Your task to perform on an android device: allow cookies in the chrome app Image 0: 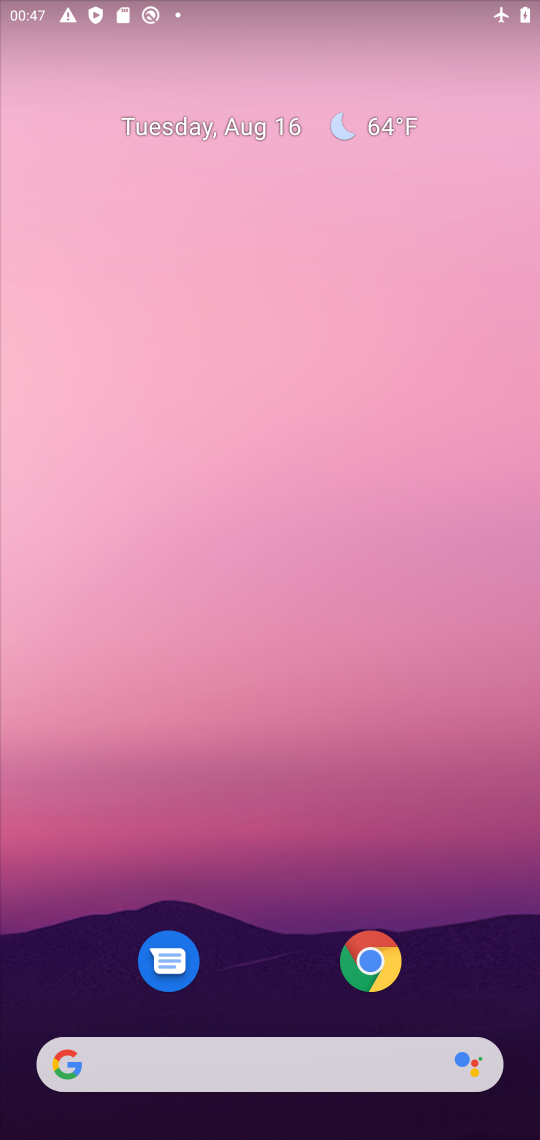
Step 0: press home button
Your task to perform on an android device: allow cookies in the chrome app Image 1: 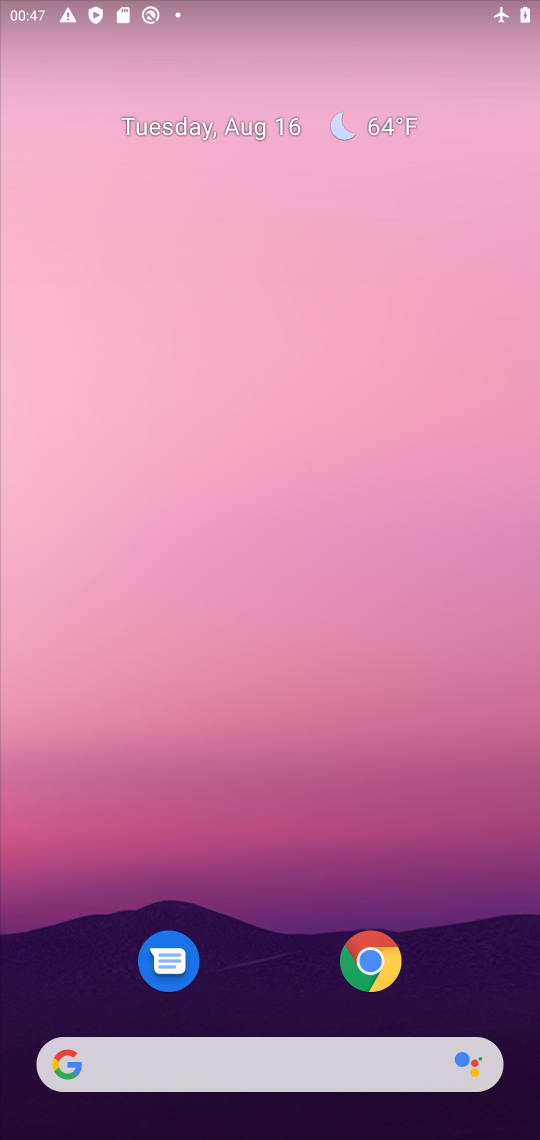
Step 1: drag from (213, 994) to (346, 166)
Your task to perform on an android device: allow cookies in the chrome app Image 2: 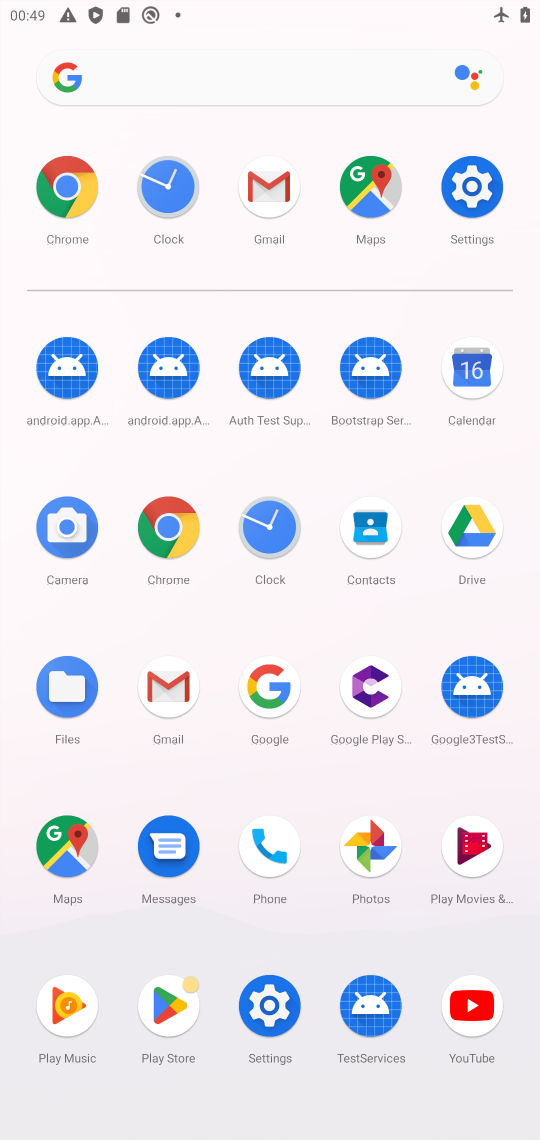
Step 2: click (170, 542)
Your task to perform on an android device: allow cookies in the chrome app Image 3: 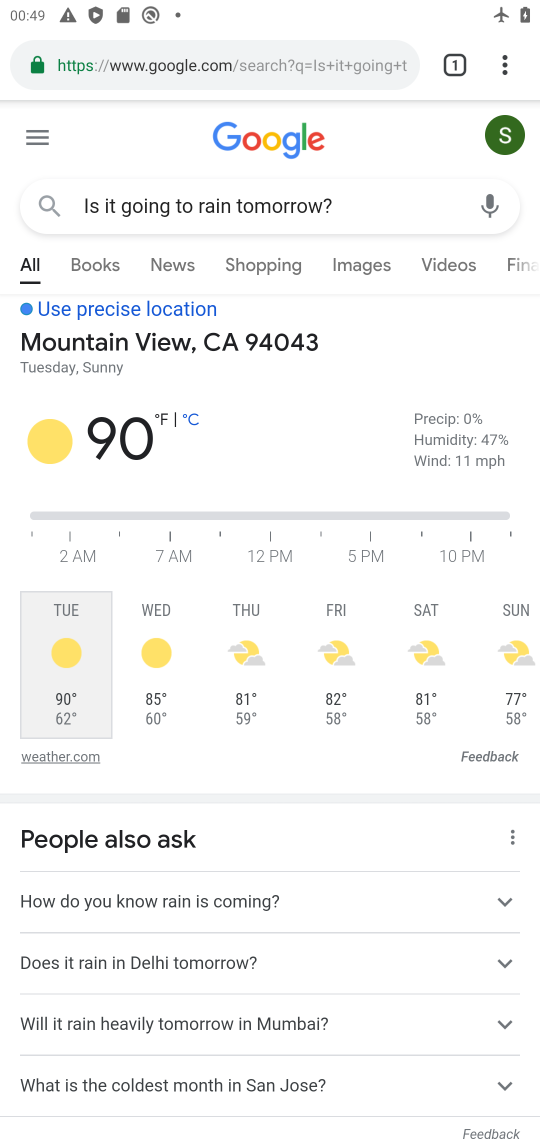
Step 3: drag from (512, 57) to (223, 810)
Your task to perform on an android device: allow cookies in the chrome app Image 4: 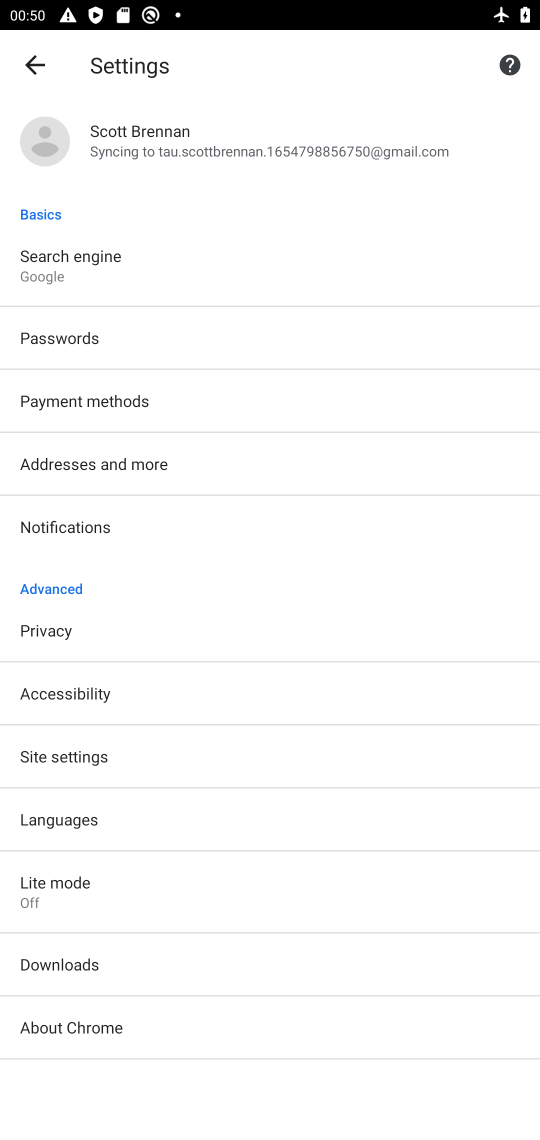
Step 4: click (22, 758)
Your task to perform on an android device: allow cookies in the chrome app Image 5: 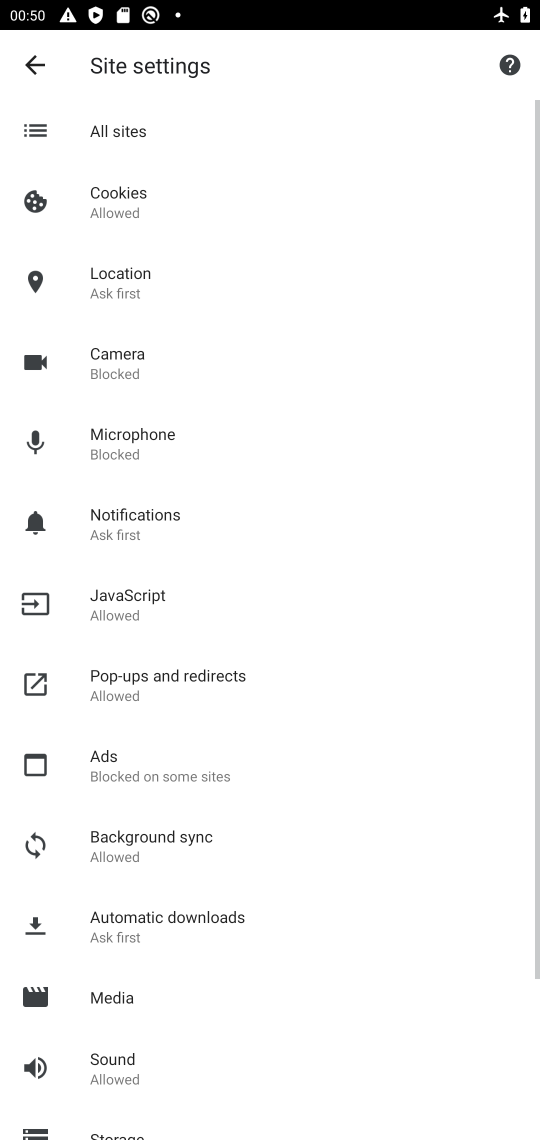
Step 5: click (125, 206)
Your task to perform on an android device: allow cookies in the chrome app Image 6: 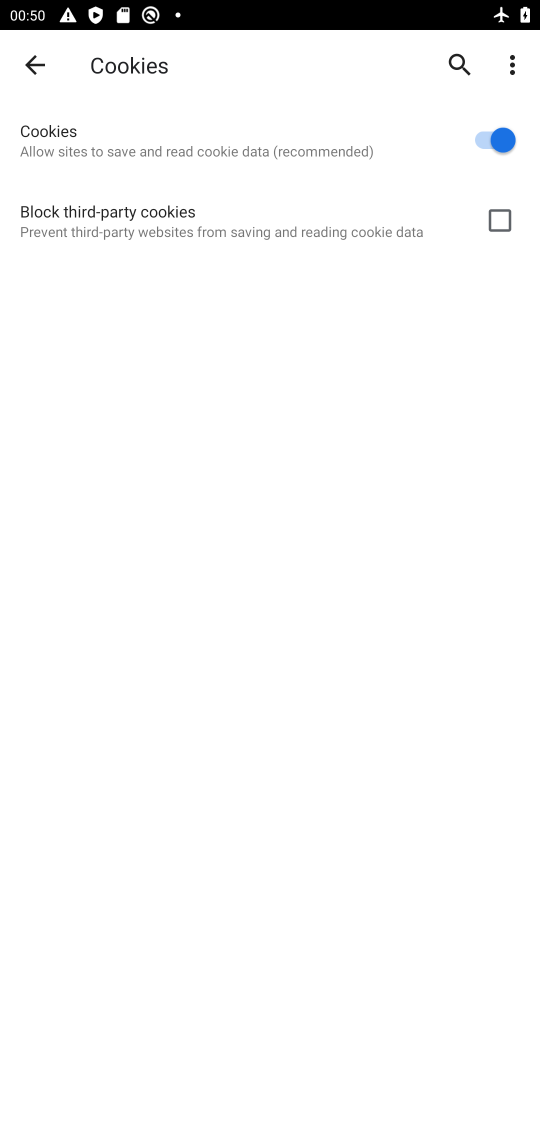
Step 6: task complete